Your task to perform on an android device: Open privacy settings Image 0: 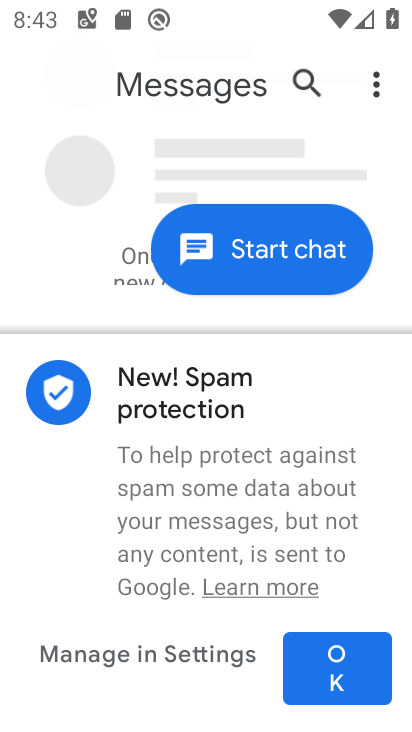
Step 0: press home button
Your task to perform on an android device: Open privacy settings Image 1: 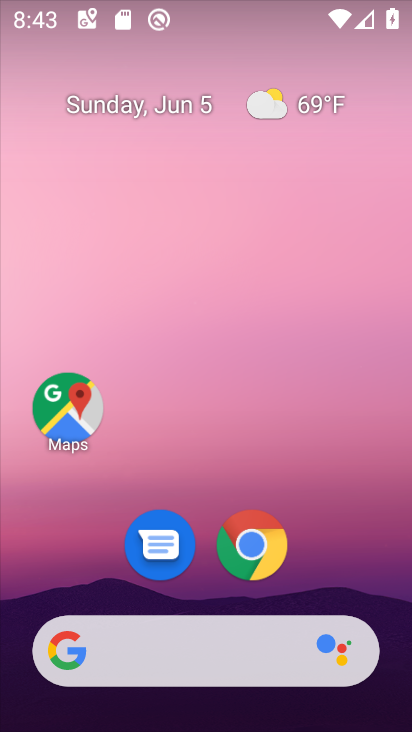
Step 1: drag from (348, 284) to (338, 153)
Your task to perform on an android device: Open privacy settings Image 2: 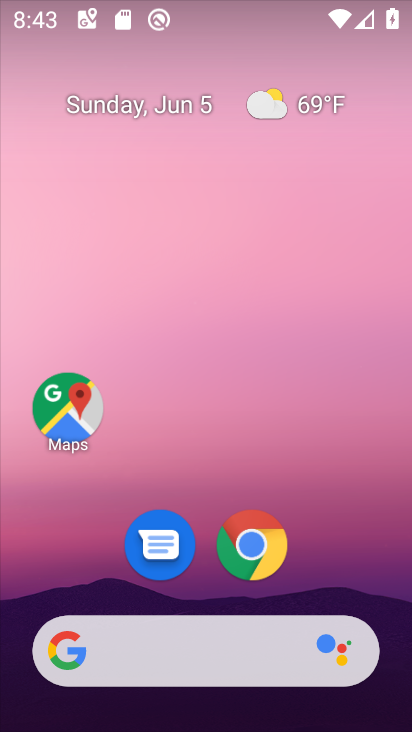
Step 2: drag from (350, 581) to (351, 141)
Your task to perform on an android device: Open privacy settings Image 3: 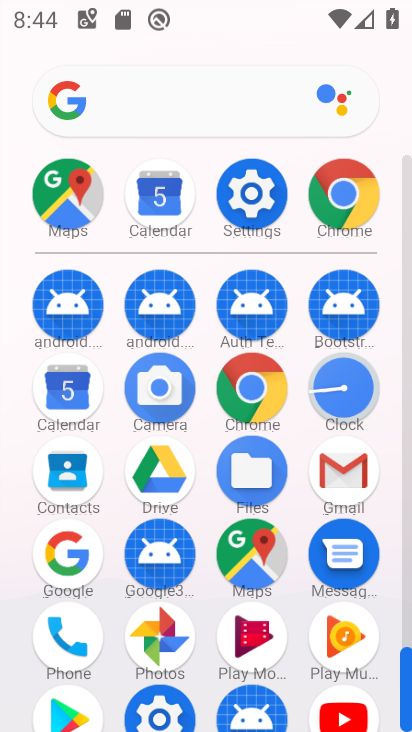
Step 3: click (261, 214)
Your task to perform on an android device: Open privacy settings Image 4: 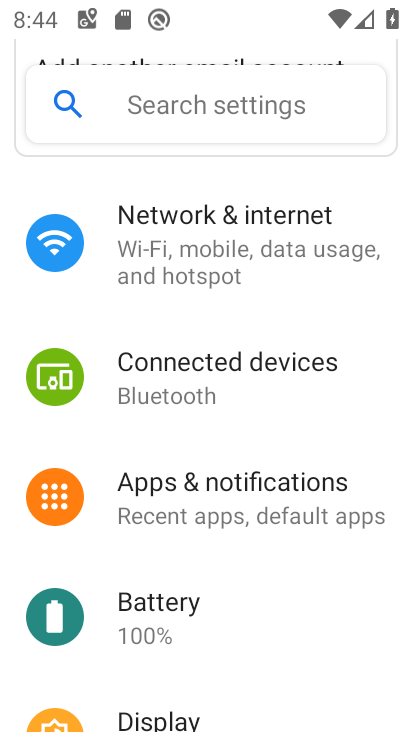
Step 4: drag from (356, 309) to (364, 485)
Your task to perform on an android device: Open privacy settings Image 5: 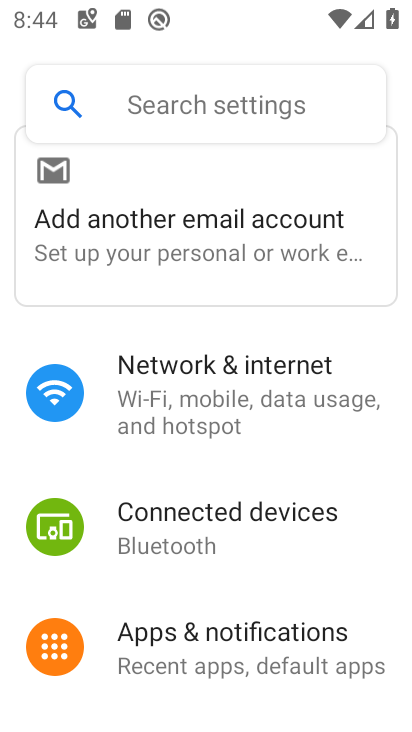
Step 5: drag from (368, 500) to (382, 353)
Your task to perform on an android device: Open privacy settings Image 6: 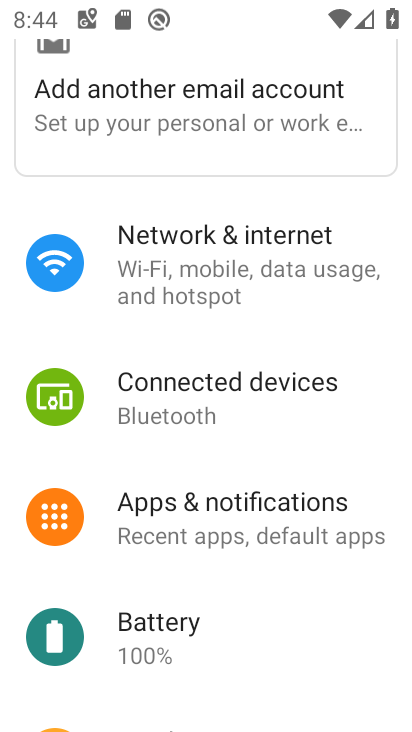
Step 6: drag from (359, 503) to (368, 379)
Your task to perform on an android device: Open privacy settings Image 7: 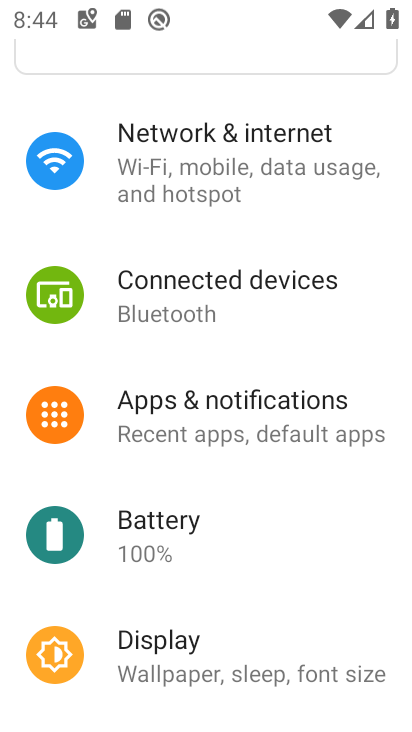
Step 7: drag from (348, 534) to (372, 409)
Your task to perform on an android device: Open privacy settings Image 8: 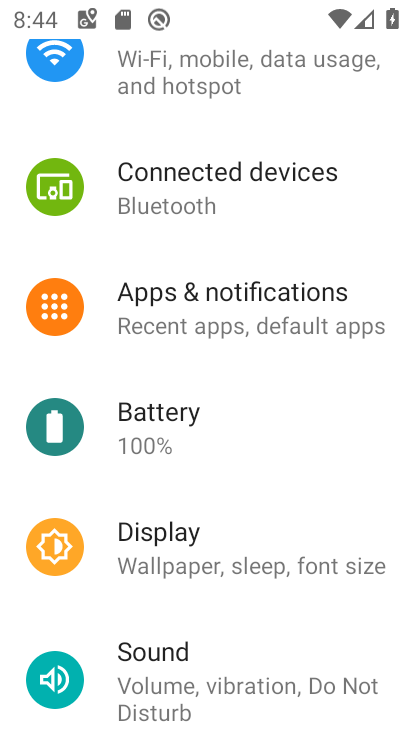
Step 8: drag from (359, 589) to (360, 451)
Your task to perform on an android device: Open privacy settings Image 9: 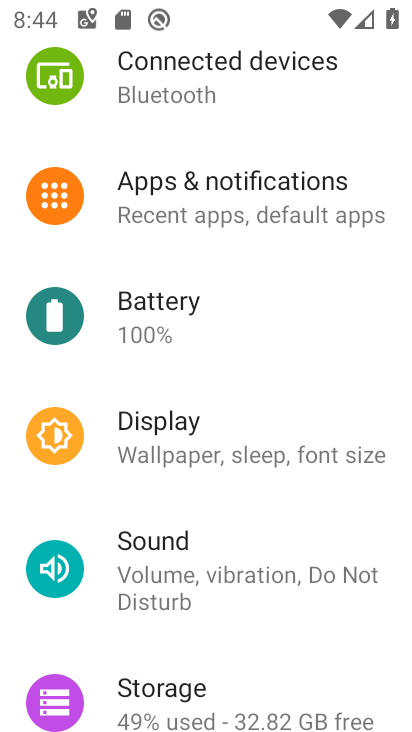
Step 9: drag from (343, 597) to (349, 448)
Your task to perform on an android device: Open privacy settings Image 10: 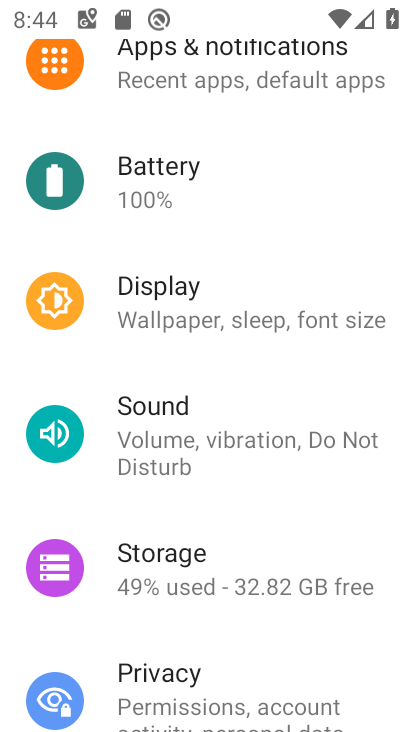
Step 10: drag from (341, 558) to (340, 430)
Your task to perform on an android device: Open privacy settings Image 11: 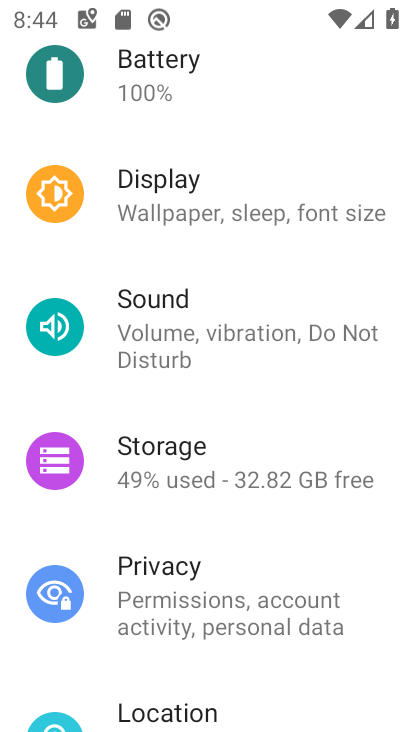
Step 11: drag from (352, 656) to (364, 449)
Your task to perform on an android device: Open privacy settings Image 12: 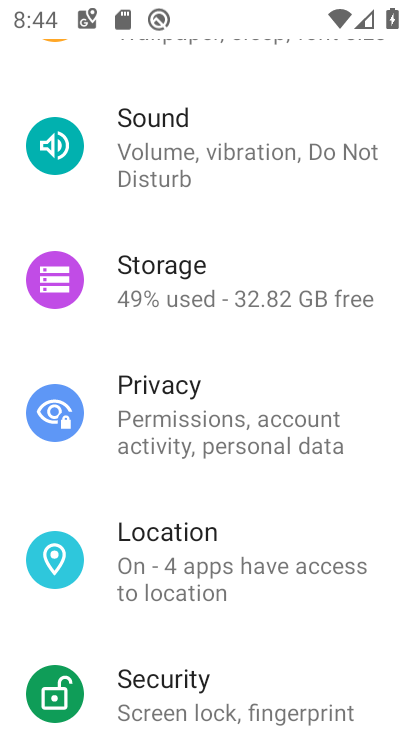
Step 12: drag from (324, 625) to (327, 445)
Your task to perform on an android device: Open privacy settings Image 13: 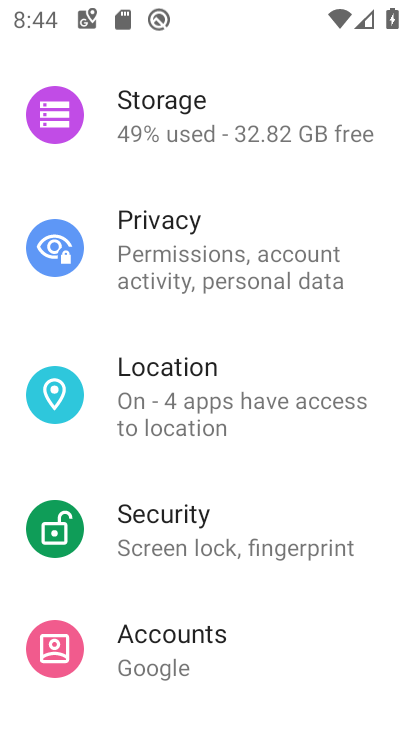
Step 13: drag from (319, 608) to (355, 450)
Your task to perform on an android device: Open privacy settings Image 14: 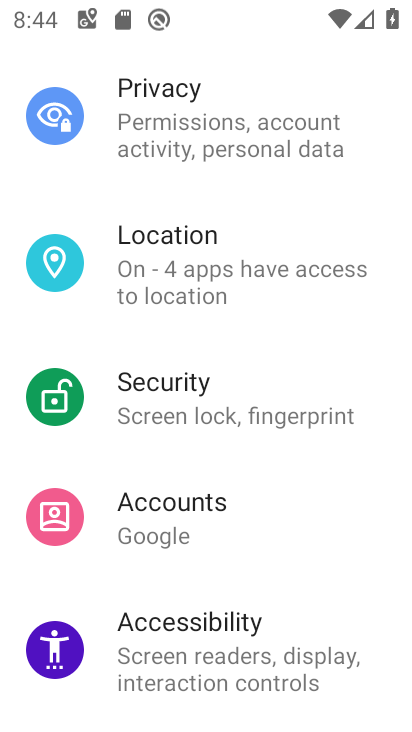
Step 14: drag from (373, 590) to (359, 464)
Your task to perform on an android device: Open privacy settings Image 15: 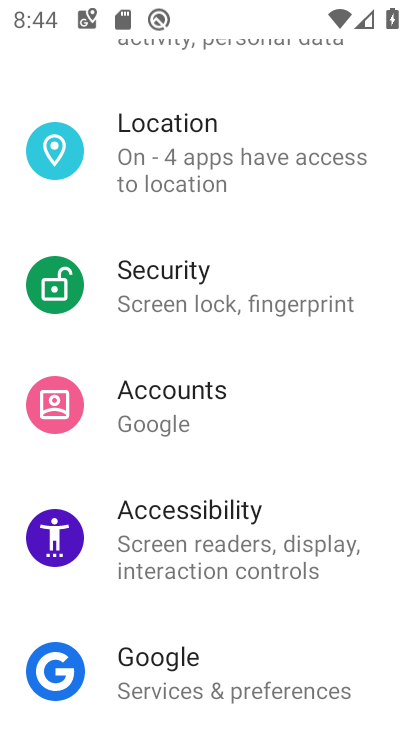
Step 15: drag from (343, 198) to (351, 395)
Your task to perform on an android device: Open privacy settings Image 16: 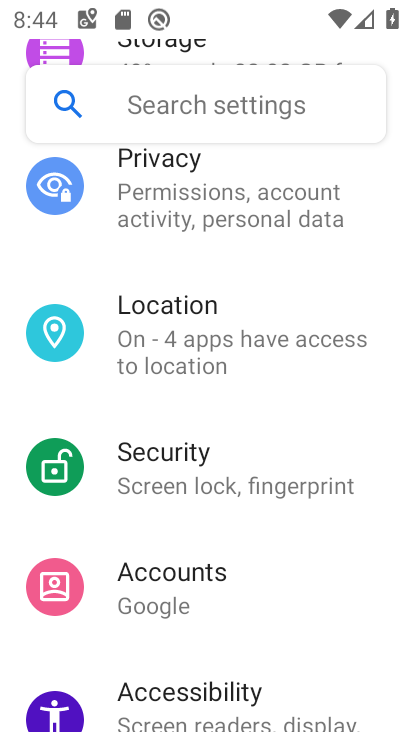
Step 16: drag from (366, 185) to (366, 347)
Your task to perform on an android device: Open privacy settings Image 17: 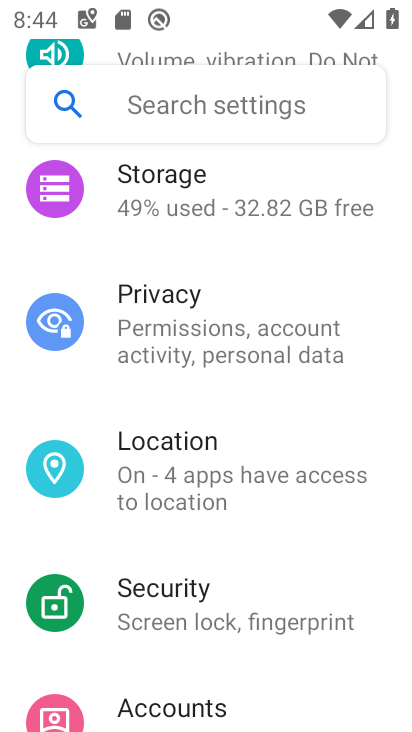
Step 17: click (296, 347)
Your task to perform on an android device: Open privacy settings Image 18: 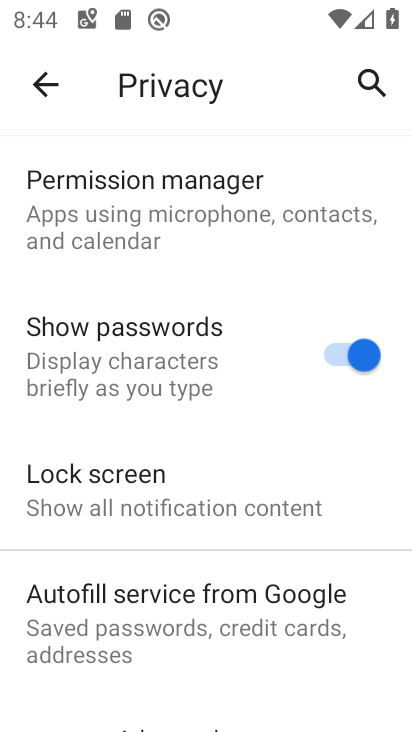
Step 18: task complete